Your task to perform on an android device: open sync settings in chrome Image 0: 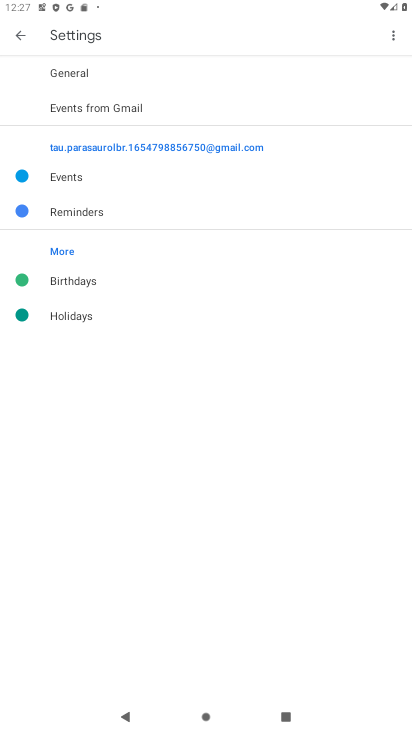
Step 0: press home button
Your task to perform on an android device: open sync settings in chrome Image 1: 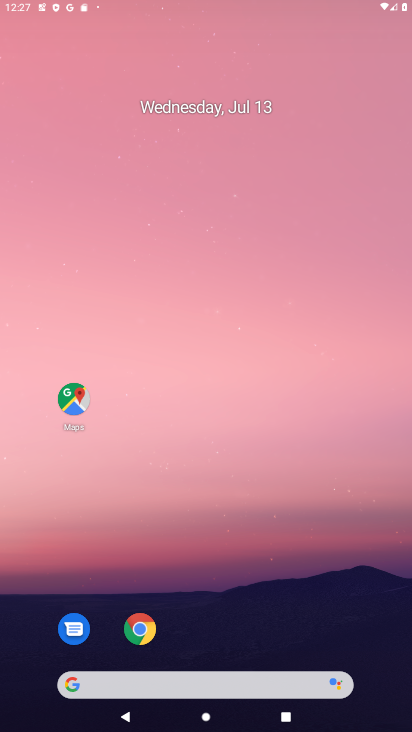
Step 1: drag from (279, 586) to (274, 208)
Your task to perform on an android device: open sync settings in chrome Image 2: 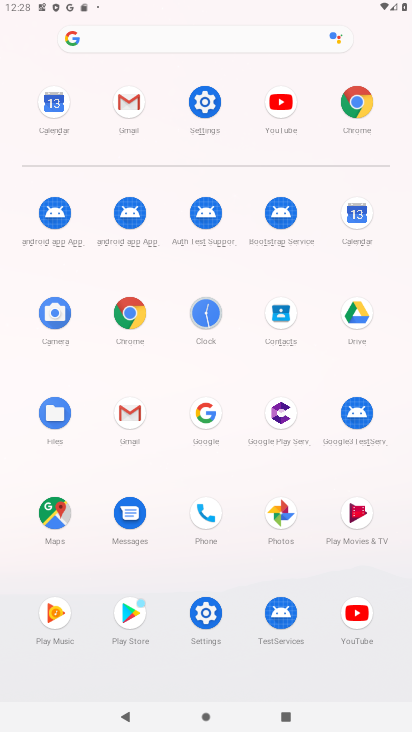
Step 2: click (349, 94)
Your task to perform on an android device: open sync settings in chrome Image 3: 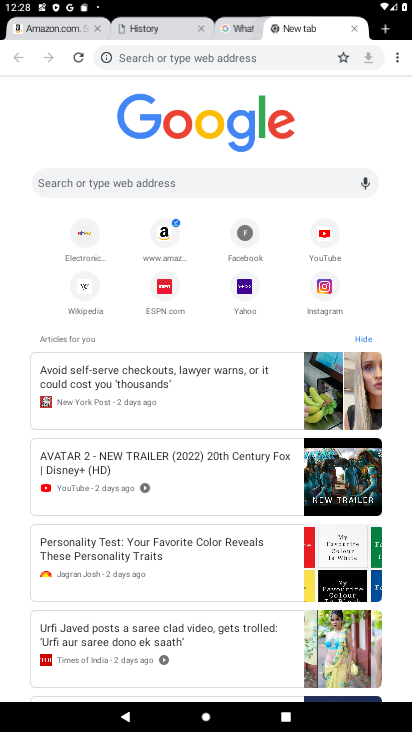
Step 3: click (401, 54)
Your task to perform on an android device: open sync settings in chrome Image 4: 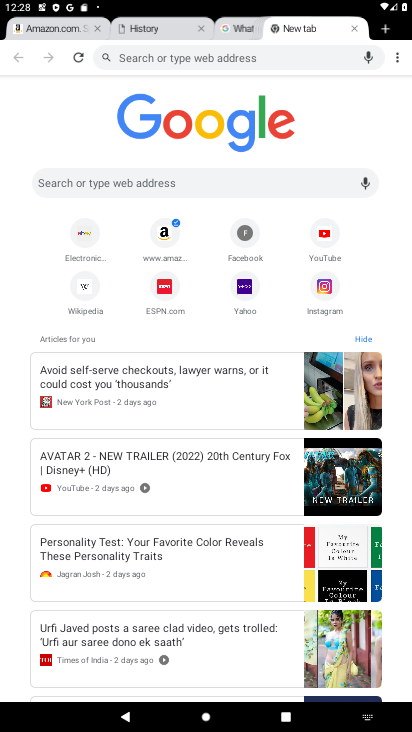
Step 4: click (397, 49)
Your task to perform on an android device: open sync settings in chrome Image 5: 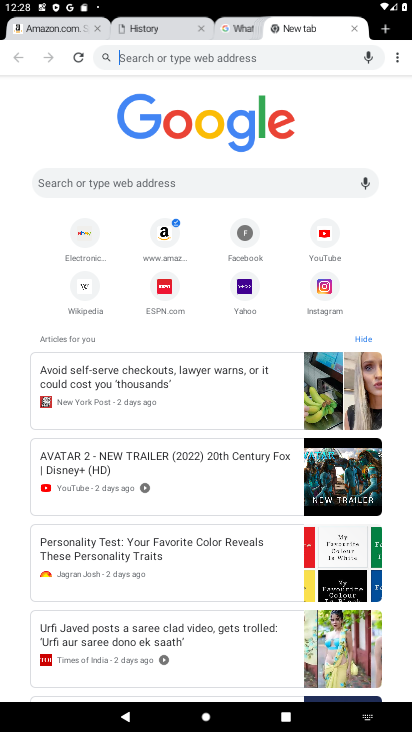
Step 5: click (384, 64)
Your task to perform on an android device: open sync settings in chrome Image 6: 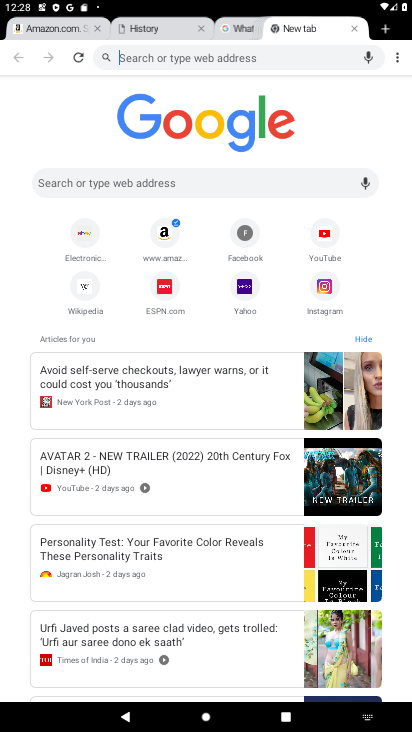
Step 6: click (400, 49)
Your task to perform on an android device: open sync settings in chrome Image 7: 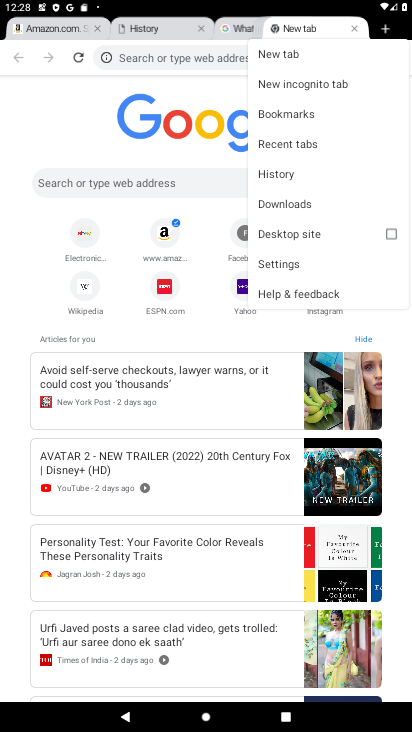
Step 7: click (301, 254)
Your task to perform on an android device: open sync settings in chrome Image 8: 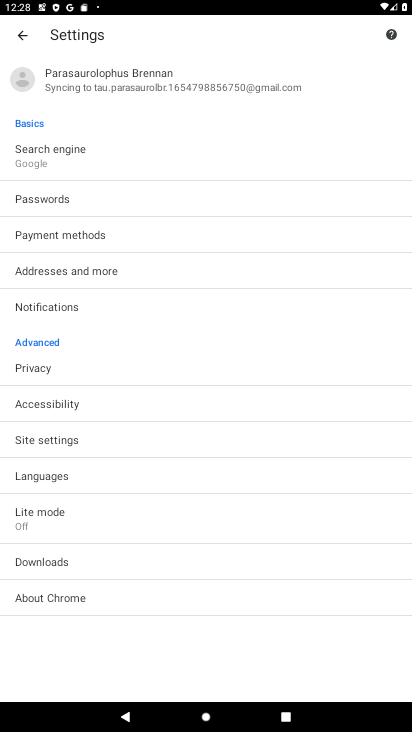
Step 8: click (88, 76)
Your task to perform on an android device: open sync settings in chrome Image 9: 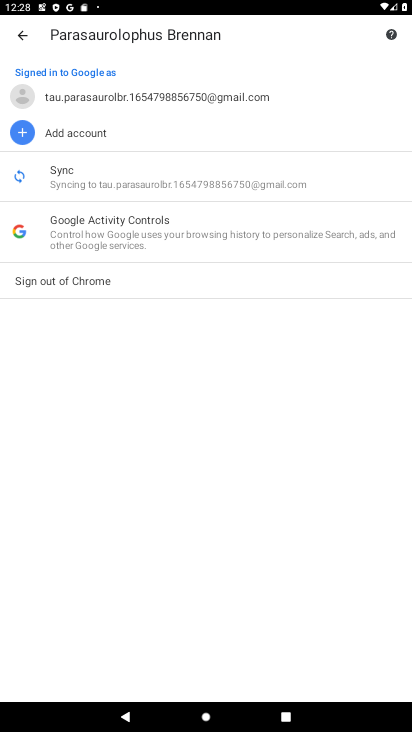
Step 9: click (115, 171)
Your task to perform on an android device: open sync settings in chrome Image 10: 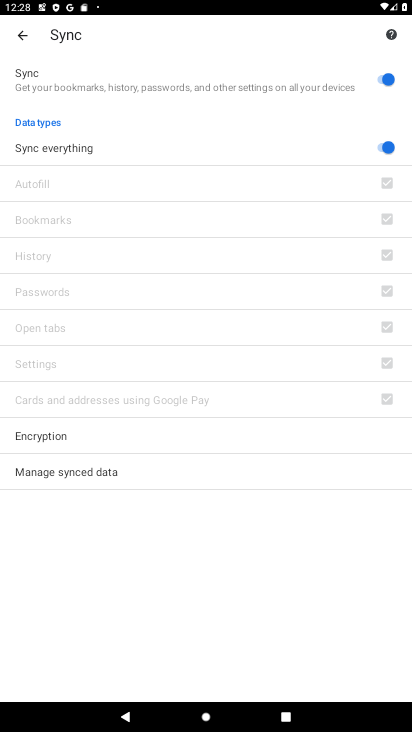
Step 10: task complete